Your task to perform on an android device: change your default location settings in chrome Image 0: 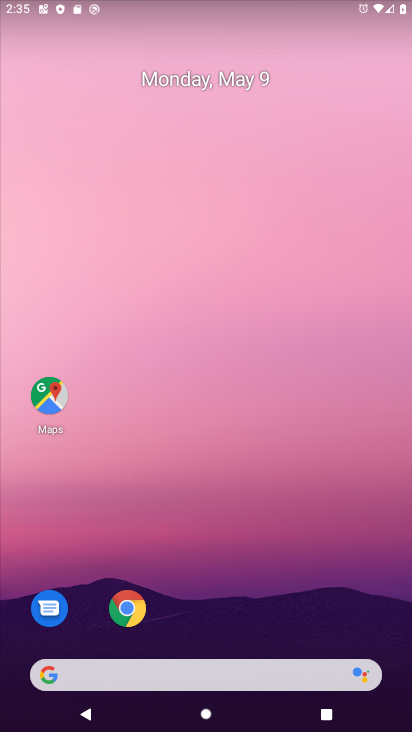
Step 0: click (115, 616)
Your task to perform on an android device: change your default location settings in chrome Image 1: 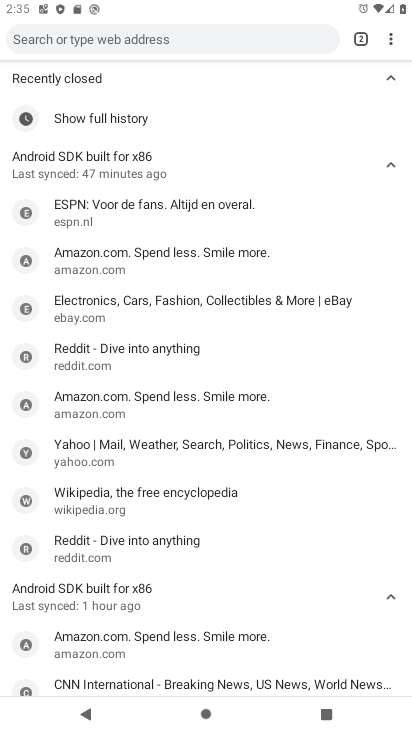
Step 1: click (382, 29)
Your task to perform on an android device: change your default location settings in chrome Image 2: 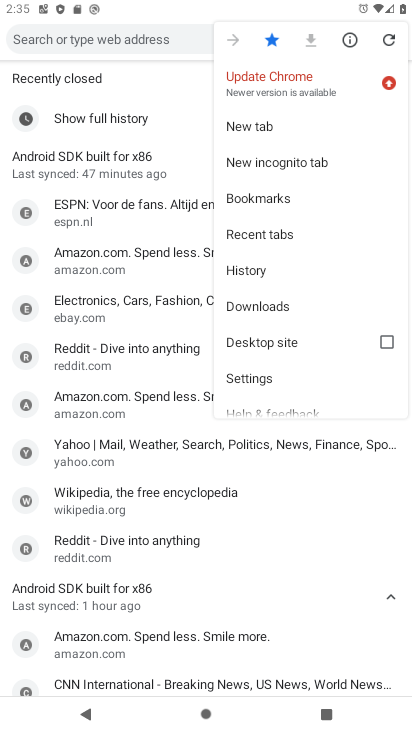
Step 2: click (281, 380)
Your task to perform on an android device: change your default location settings in chrome Image 3: 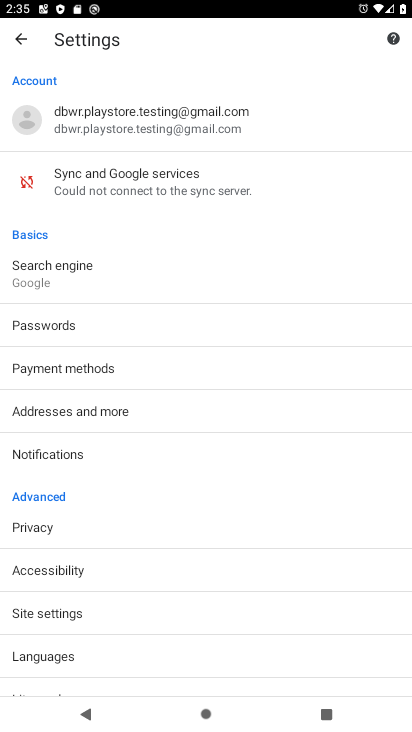
Step 3: drag from (127, 672) to (267, 178)
Your task to perform on an android device: change your default location settings in chrome Image 4: 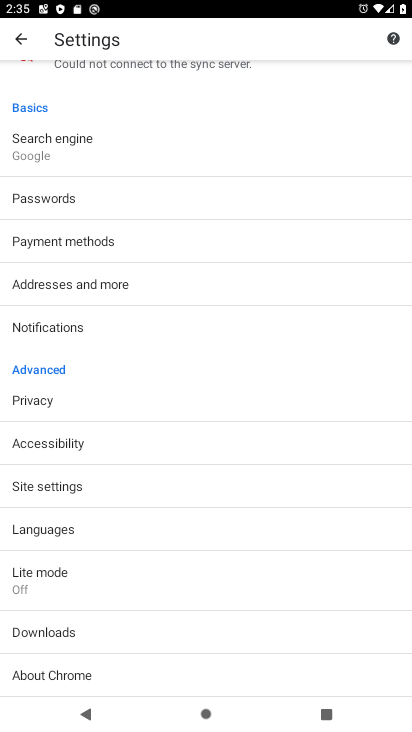
Step 4: click (114, 488)
Your task to perform on an android device: change your default location settings in chrome Image 5: 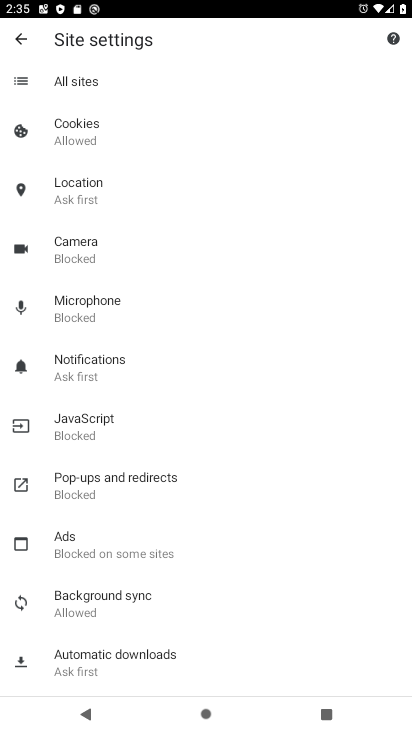
Step 5: click (138, 199)
Your task to perform on an android device: change your default location settings in chrome Image 6: 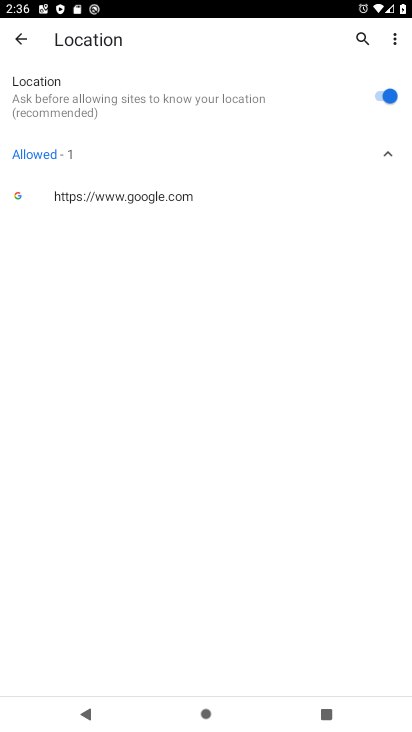
Step 6: click (381, 105)
Your task to perform on an android device: change your default location settings in chrome Image 7: 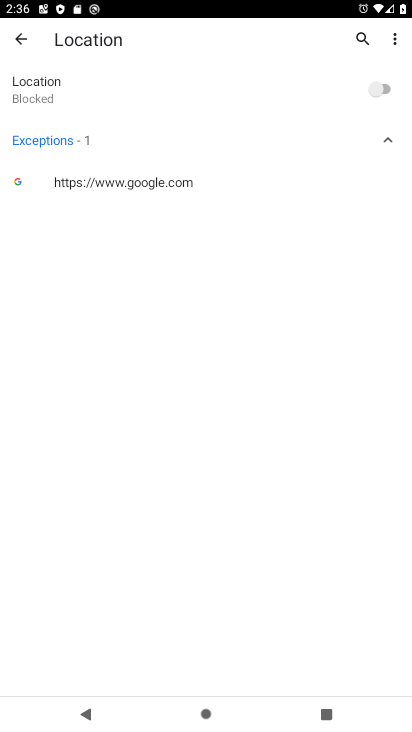
Step 7: task complete